Your task to perform on an android device: empty trash in google photos Image 0: 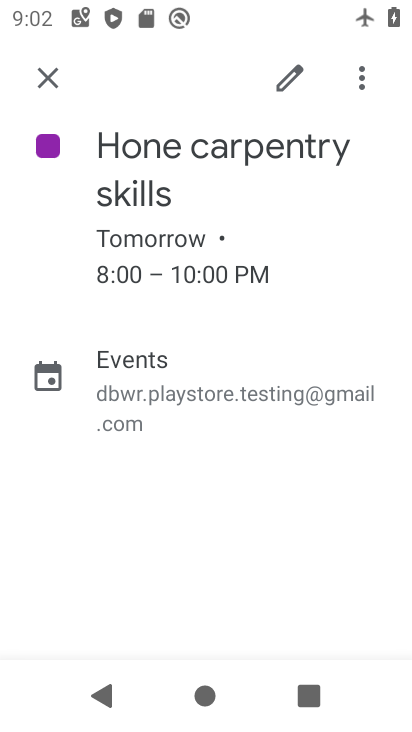
Step 0: press home button
Your task to perform on an android device: empty trash in google photos Image 1: 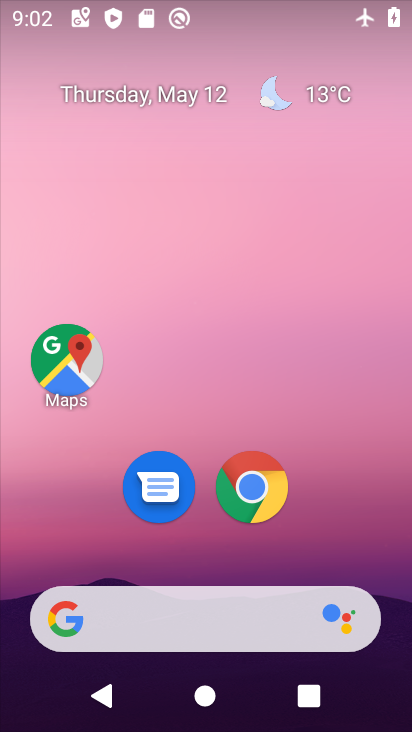
Step 1: drag from (350, 530) to (344, 0)
Your task to perform on an android device: empty trash in google photos Image 2: 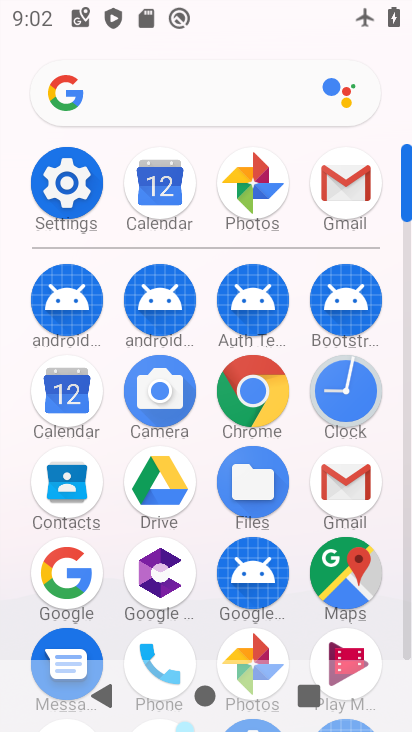
Step 2: click (263, 181)
Your task to perform on an android device: empty trash in google photos Image 3: 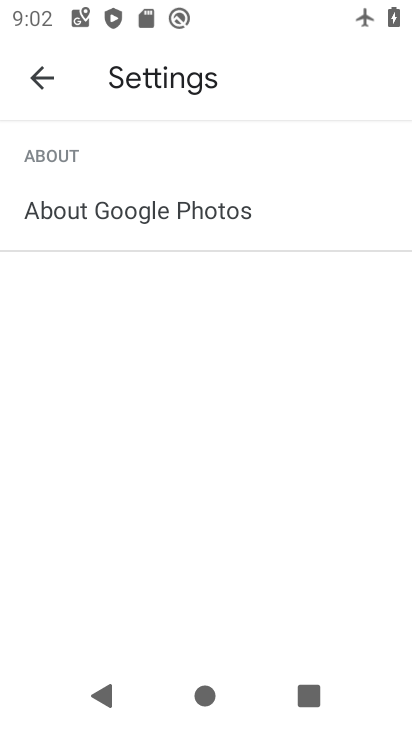
Step 3: click (48, 81)
Your task to perform on an android device: empty trash in google photos Image 4: 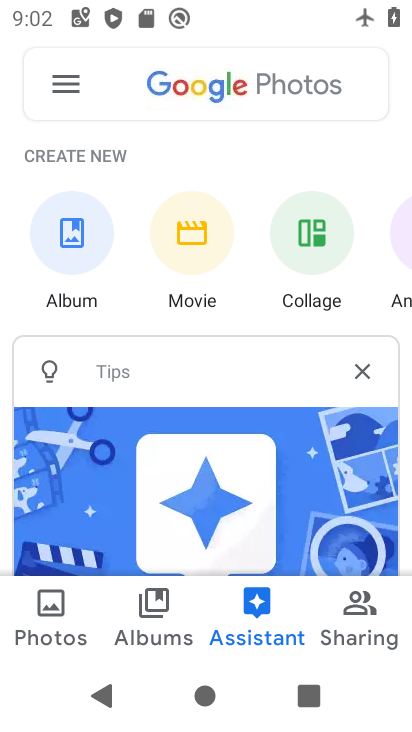
Step 4: click (59, 91)
Your task to perform on an android device: empty trash in google photos Image 5: 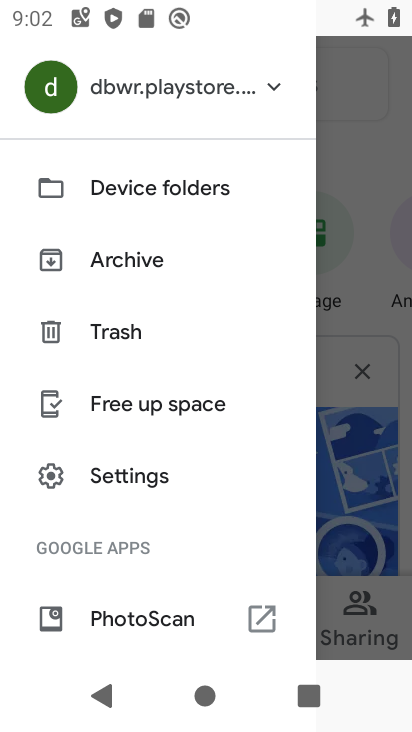
Step 5: click (124, 343)
Your task to perform on an android device: empty trash in google photos Image 6: 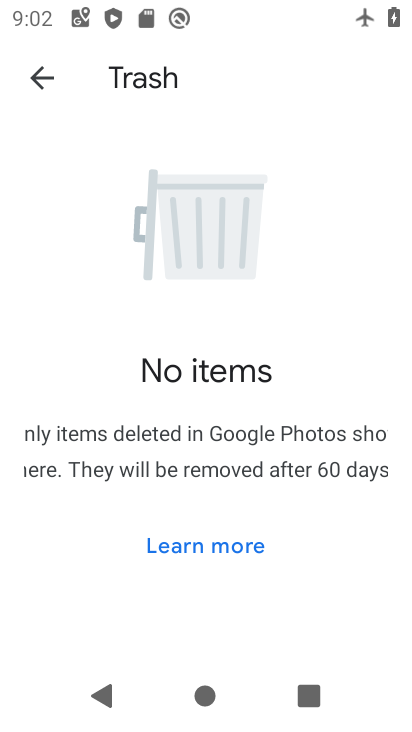
Step 6: task complete